Your task to perform on an android device: When is my next appointment? Image 0: 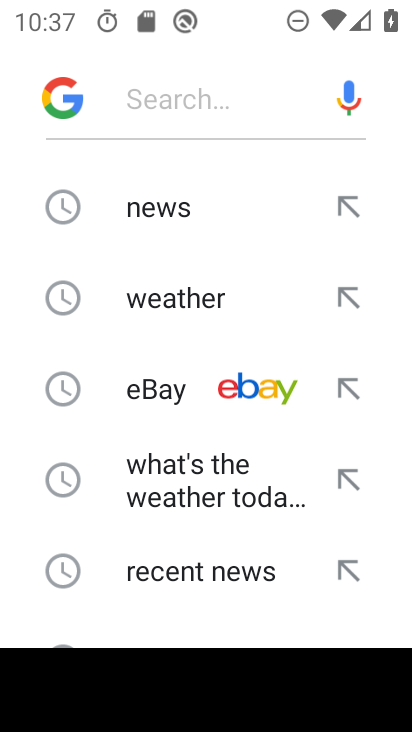
Step 0: press home button
Your task to perform on an android device: When is my next appointment? Image 1: 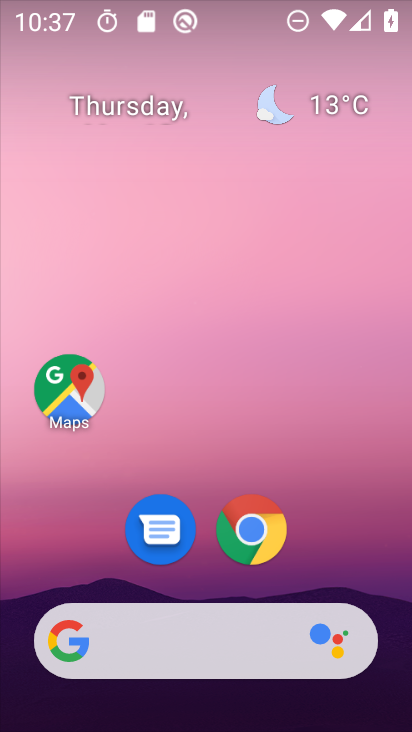
Step 1: drag from (319, 499) to (373, 76)
Your task to perform on an android device: When is my next appointment? Image 2: 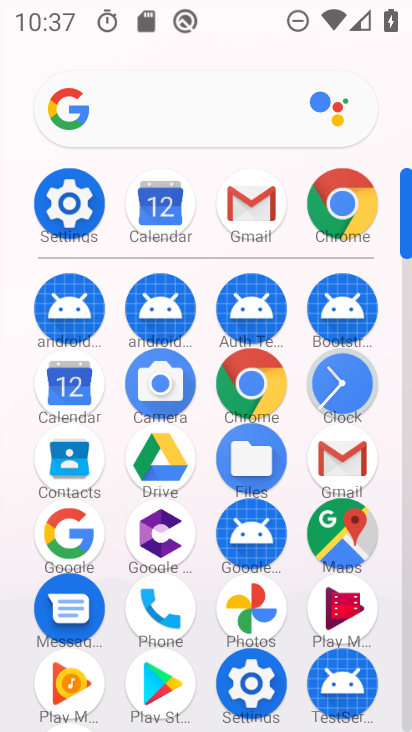
Step 2: click (152, 219)
Your task to perform on an android device: When is my next appointment? Image 3: 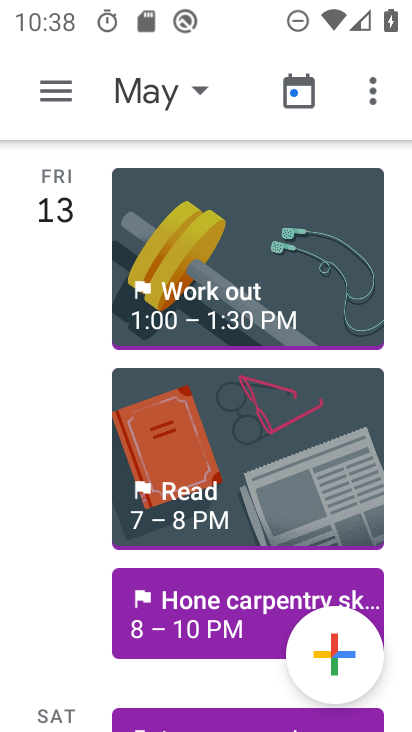
Step 3: task complete